Your task to perform on an android device: set an alarm Image 0: 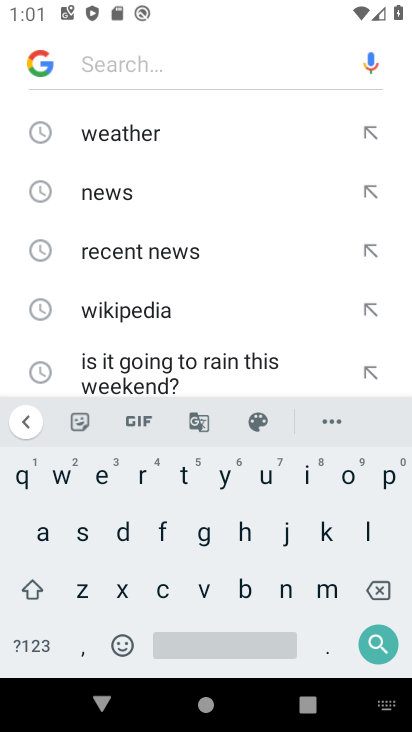
Step 0: press home button
Your task to perform on an android device: set an alarm Image 1: 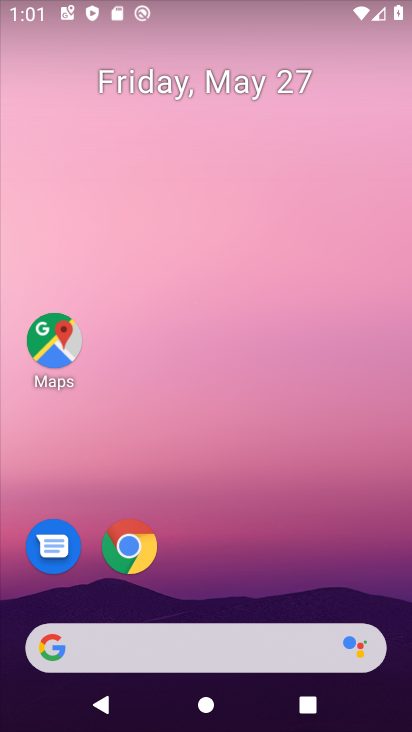
Step 1: drag from (252, 669) to (333, 0)
Your task to perform on an android device: set an alarm Image 2: 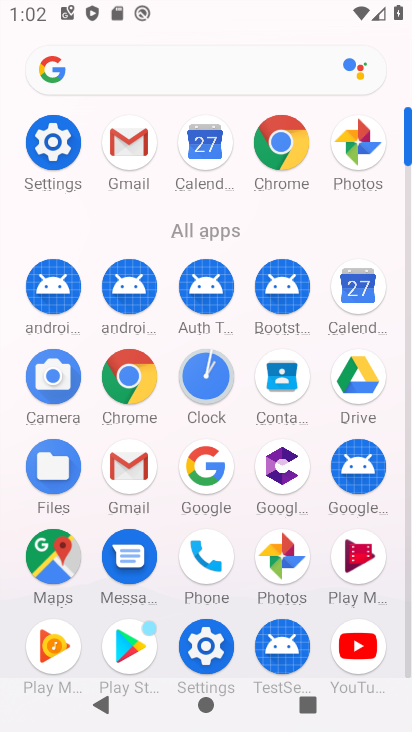
Step 2: click (203, 390)
Your task to perform on an android device: set an alarm Image 3: 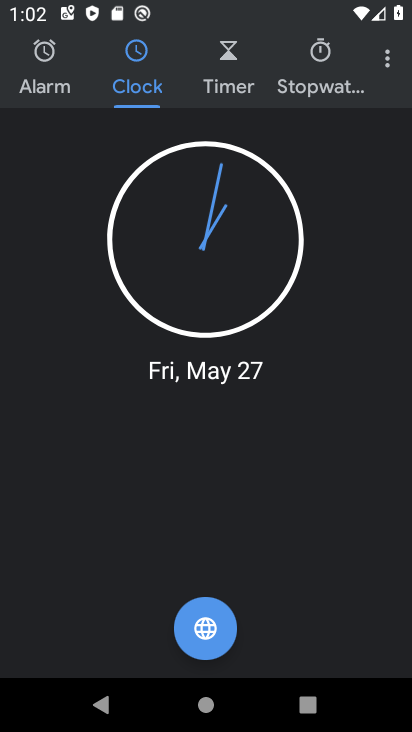
Step 3: click (61, 70)
Your task to perform on an android device: set an alarm Image 4: 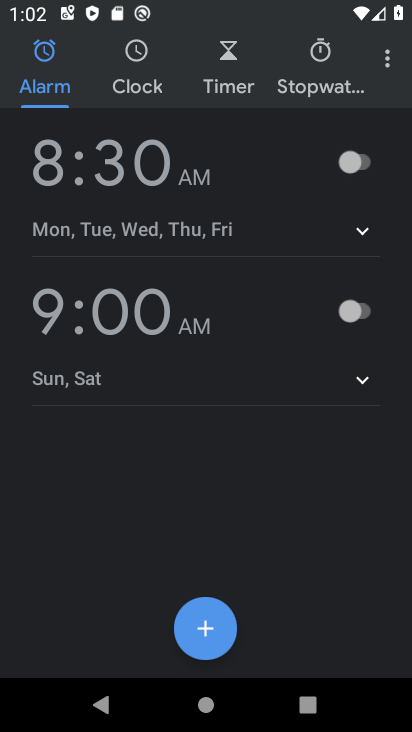
Step 4: click (367, 154)
Your task to perform on an android device: set an alarm Image 5: 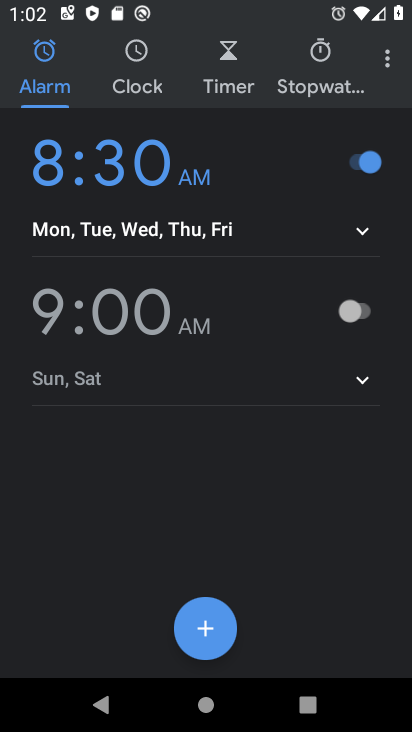
Step 5: task complete